Your task to perform on an android device: turn on wifi Image 0: 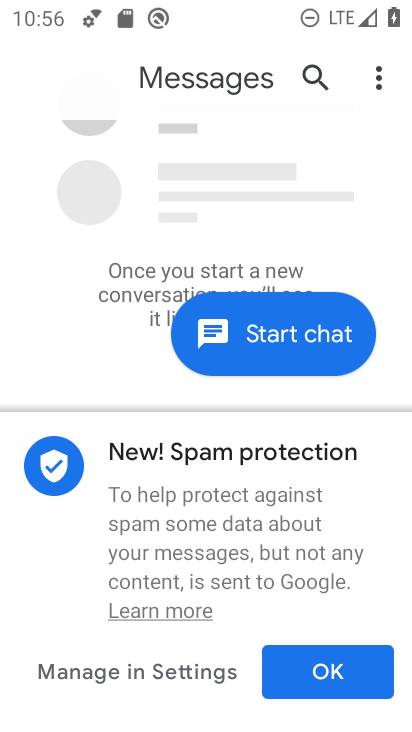
Step 0: press home button
Your task to perform on an android device: turn on wifi Image 1: 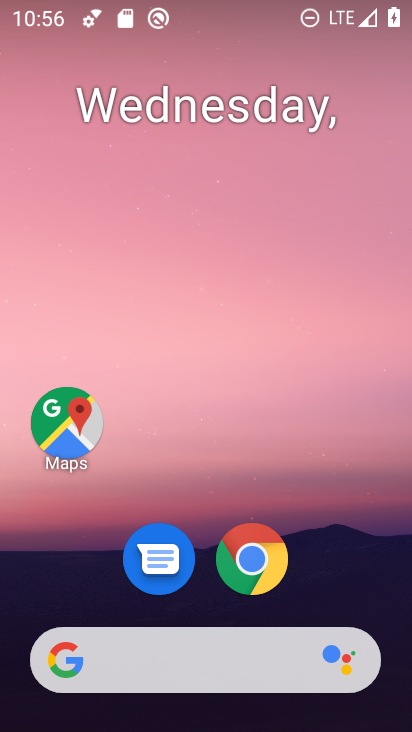
Step 1: drag from (357, 557) to (343, 112)
Your task to perform on an android device: turn on wifi Image 2: 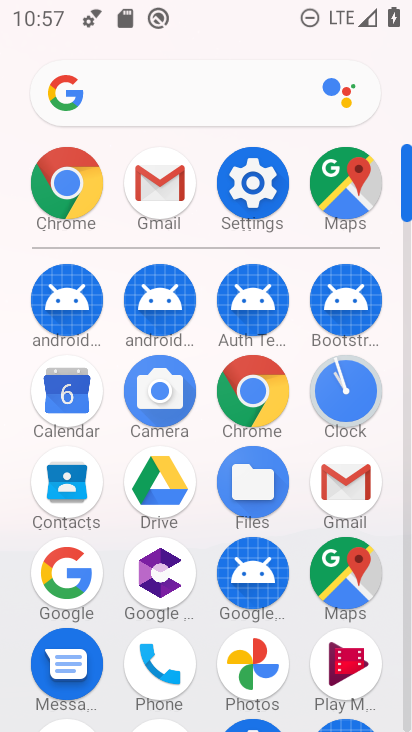
Step 2: click (256, 194)
Your task to perform on an android device: turn on wifi Image 3: 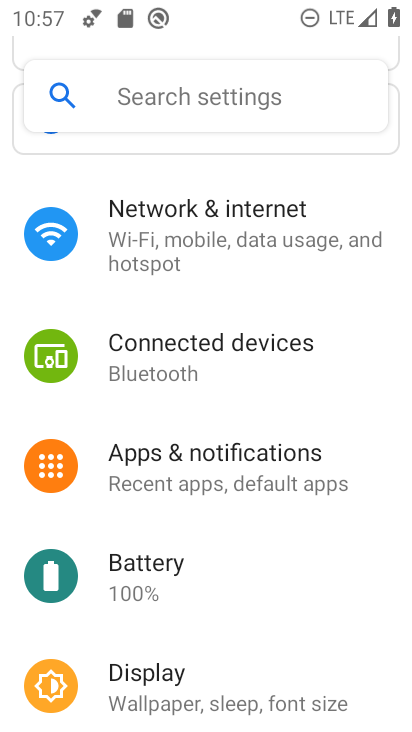
Step 3: click (264, 240)
Your task to perform on an android device: turn on wifi Image 4: 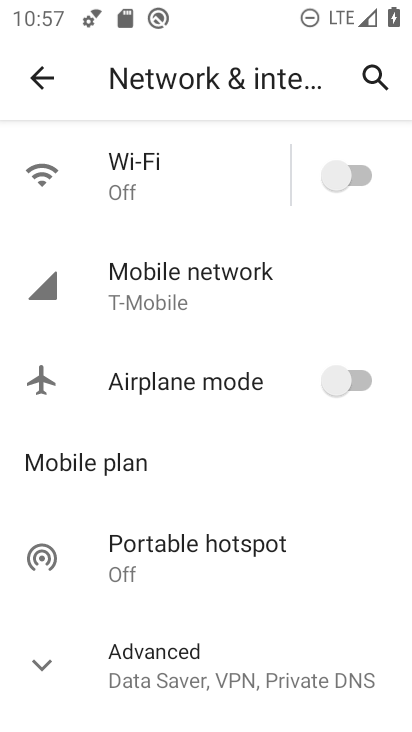
Step 4: drag from (320, 550) to (304, 348)
Your task to perform on an android device: turn on wifi Image 5: 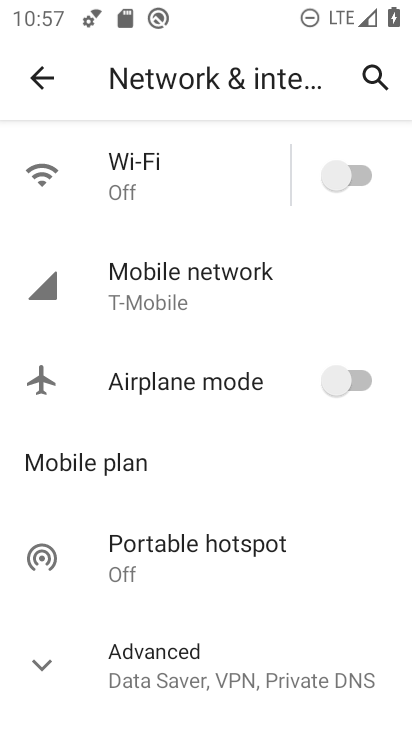
Step 5: click (339, 171)
Your task to perform on an android device: turn on wifi Image 6: 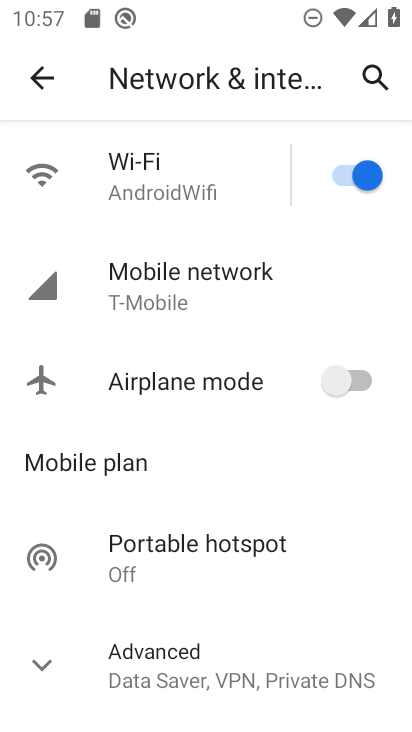
Step 6: task complete